Your task to perform on an android device: visit the assistant section in the google photos Image 0: 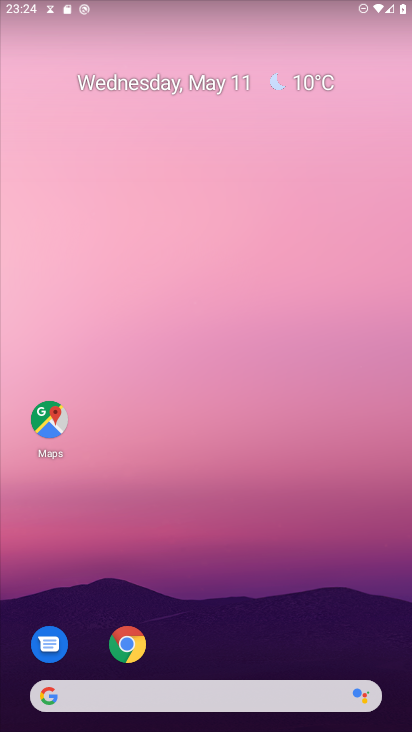
Step 0: drag from (350, 648) to (316, 107)
Your task to perform on an android device: visit the assistant section in the google photos Image 1: 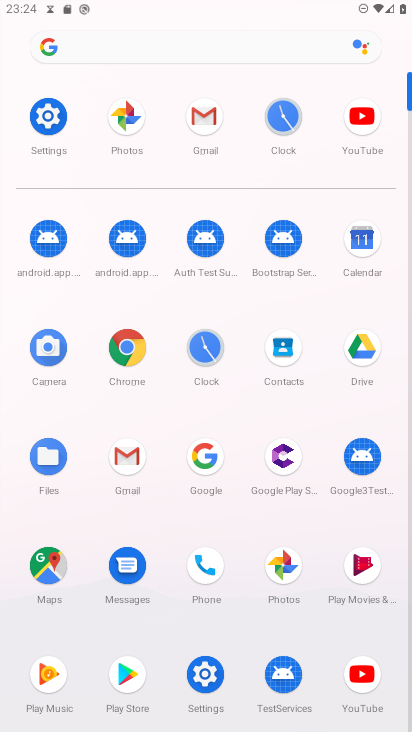
Step 1: click (117, 125)
Your task to perform on an android device: visit the assistant section in the google photos Image 2: 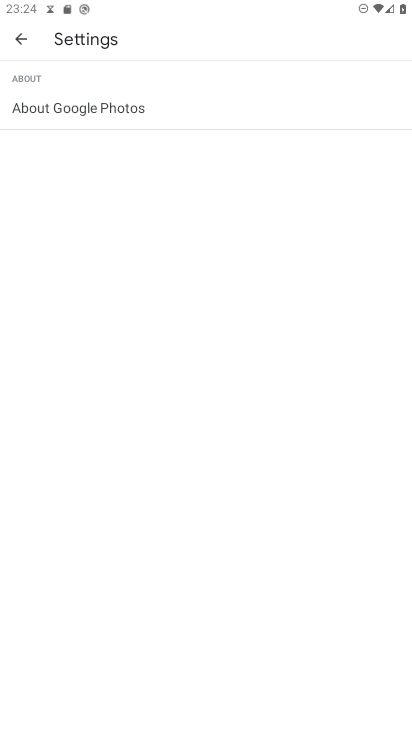
Step 2: click (24, 43)
Your task to perform on an android device: visit the assistant section in the google photos Image 3: 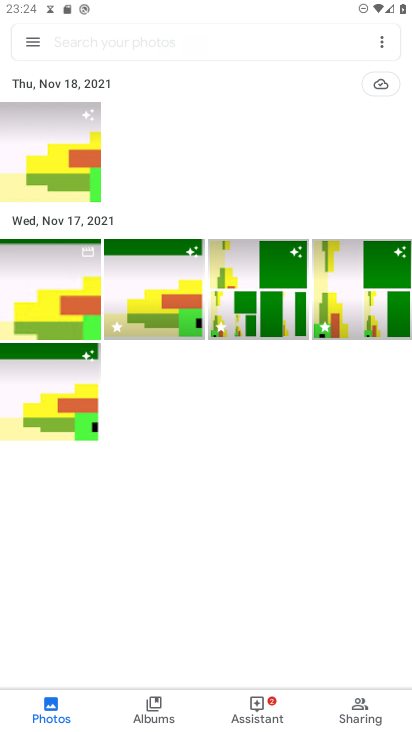
Step 3: click (253, 697)
Your task to perform on an android device: visit the assistant section in the google photos Image 4: 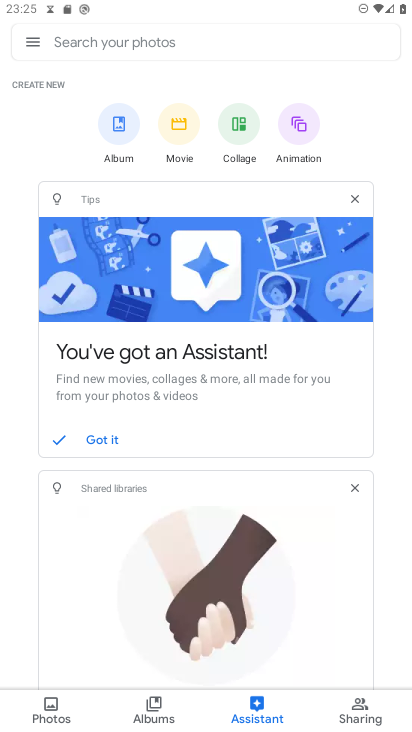
Step 4: task complete